Your task to perform on an android device: install app "McDonald's" Image 0: 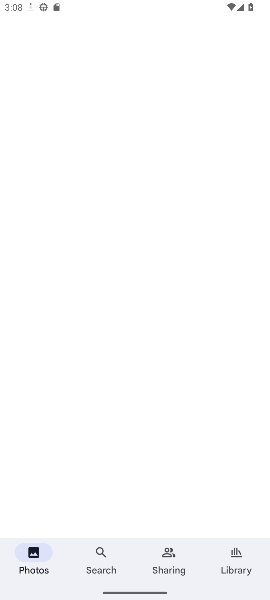
Step 0: press home button
Your task to perform on an android device: install app "McDonald's" Image 1: 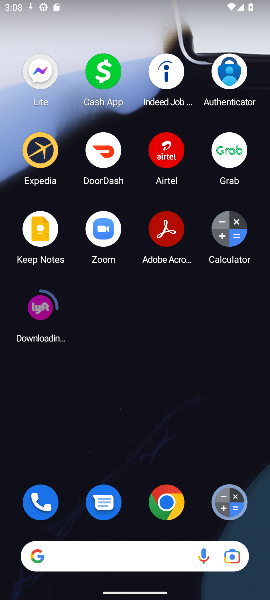
Step 1: drag from (128, 528) to (134, 74)
Your task to perform on an android device: install app "McDonald's" Image 2: 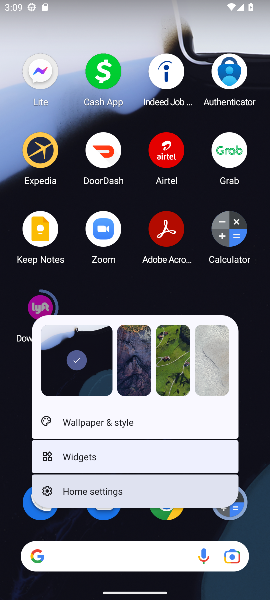
Step 2: click (147, 295)
Your task to perform on an android device: install app "McDonald's" Image 3: 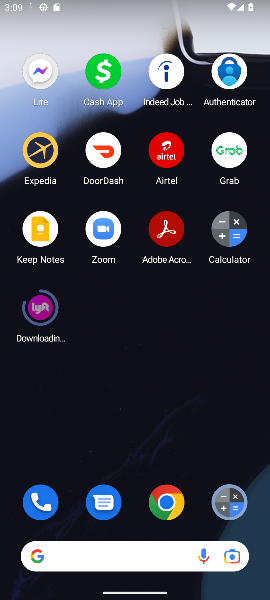
Step 3: drag from (131, 519) to (129, 161)
Your task to perform on an android device: install app "McDonald's" Image 4: 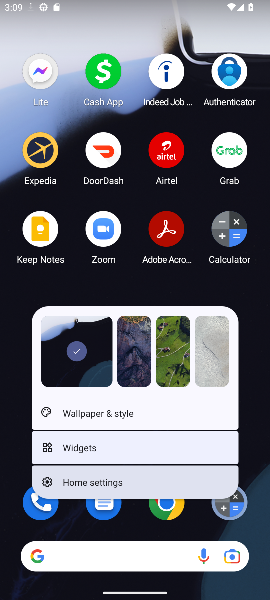
Step 4: click (136, 296)
Your task to perform on an android device: install app "McDonald's" Image 5: 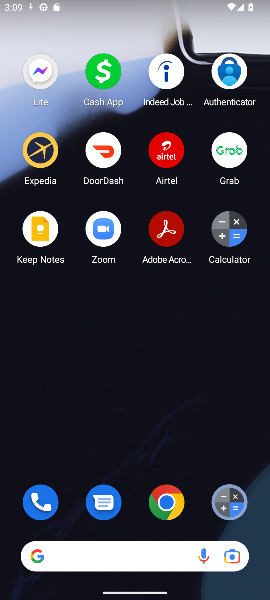
Step 5: drag from (132, 526) to (118, 30)
Your task to perform on an android device: install app "McDonald's" Image 6: 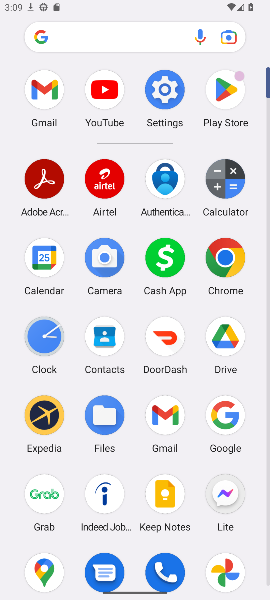
Step 6: click (235, 94)
Your task to perform on an android device: install app "McDonald's" Image 7: 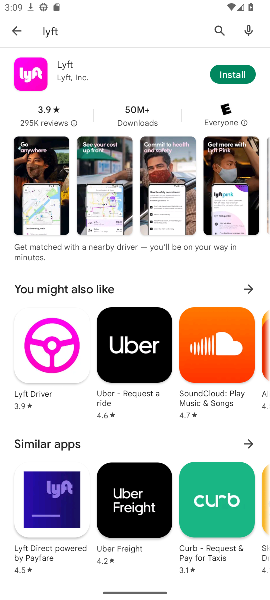
Step 7: click (213, 37)
Your task to perform on an android device: install app "McDonald's" Image 8: 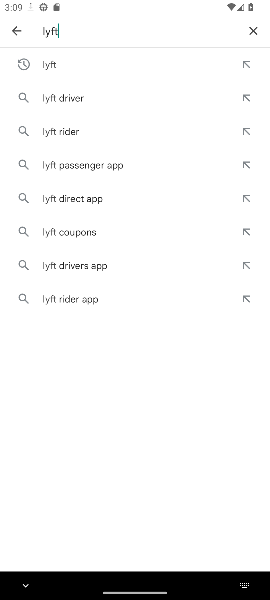
Step 8: click (247, 29)
Your task to perform on an android device: install app "McDonald's" Image 9: 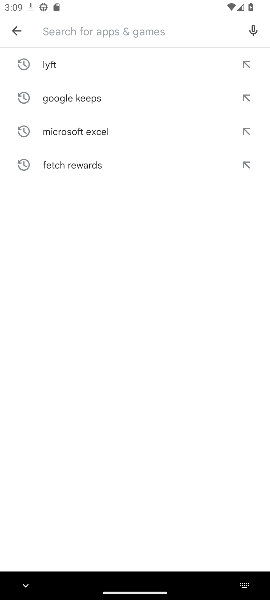
Step 9: type "mcdoland"
Your task to perform on an android device: install app "McDonald's" Image 10: 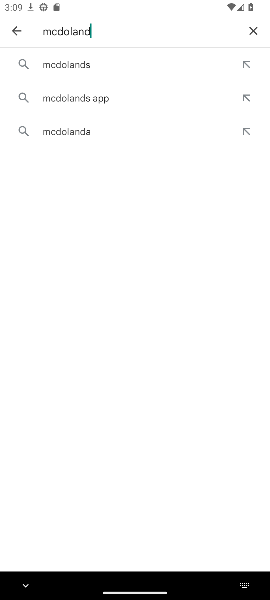
Step 10: click (166, 69)
Your task to perform on an android device: install app "McDonald's" Image 11: 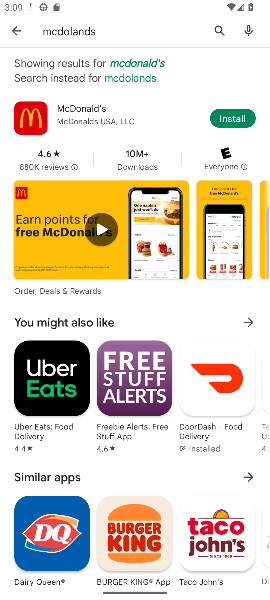
Step 11: click (224, 119)
Your task to perform on an android device: install app "McDonald's" Image 12: 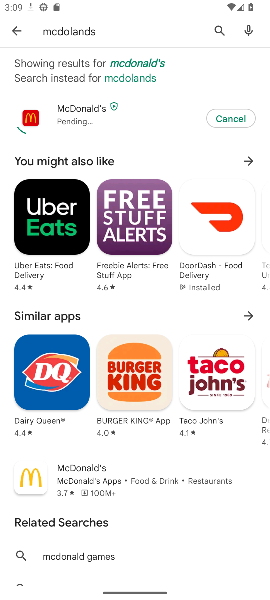
Step 12: task complete